Your task to perform on an android device: turn on translation in the chrome app Image 0: 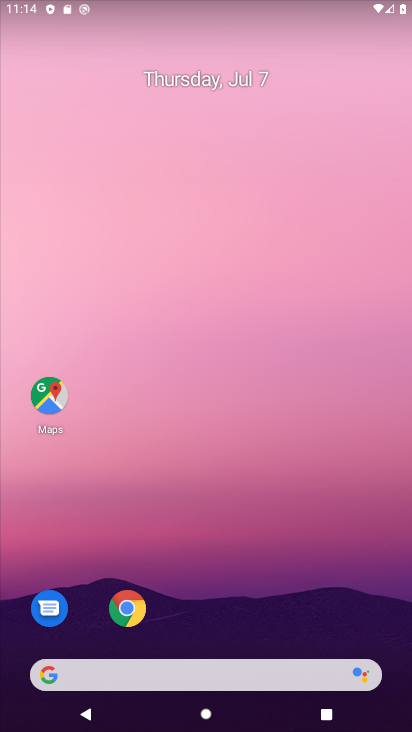
Step 0: click (139, 607)
Your task to perform on an android device: turn on translation in the chrome app Image 1: 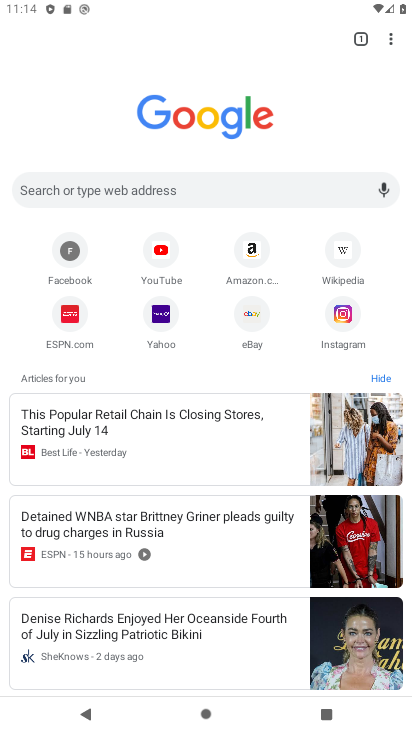
Step 1: click (389, 42)
Your task to perform on an android device: turn on translation in the chrome app Image 2: 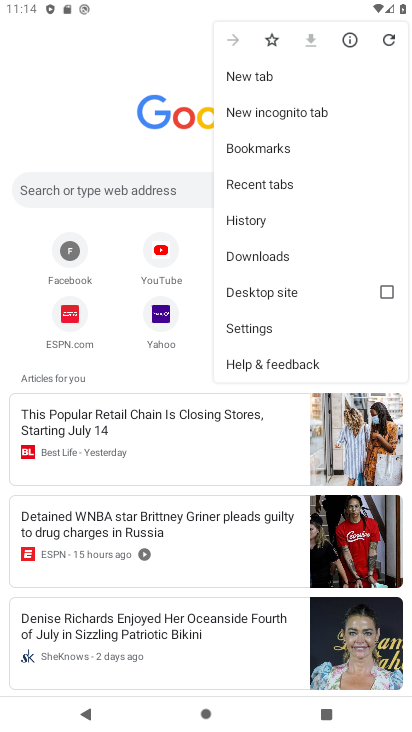
Step 2: click (257, 322)
Your task to perform on an android device: turn on translation in the chrome app Image 3: 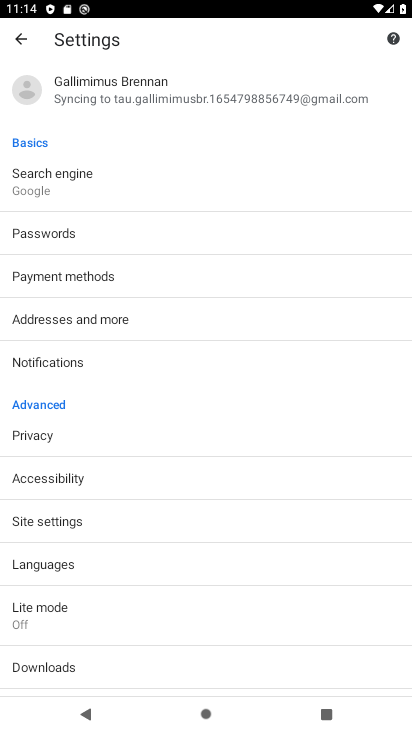
Step 3: click (115, 570)
Your task to perform on an android device: turn on translation in the chrome app Image 4: 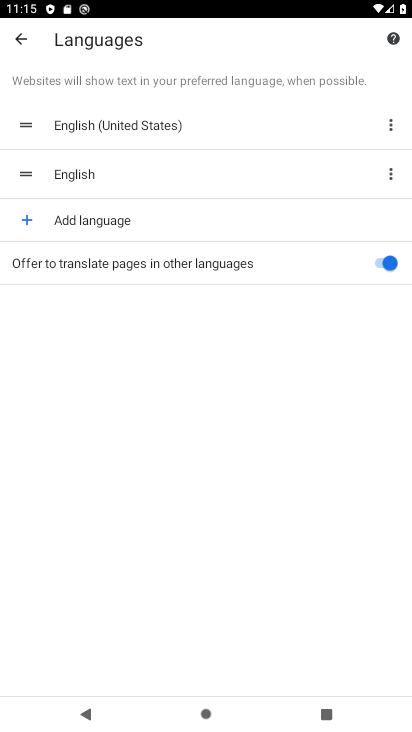
Step 4: task complete